Your task to perform on an android device: turn off priority inbox in the gmail app Image 0: 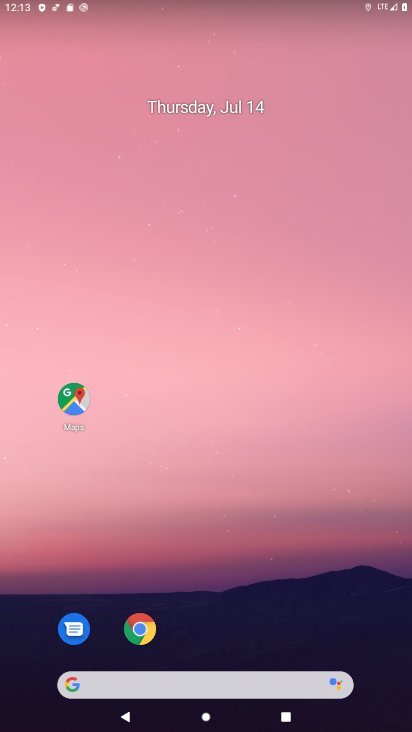
Step 0: drag from (244, 540) to (204, 8)
Your task to perform on an android device: turn off priority inbox in the gmail app Image 1: 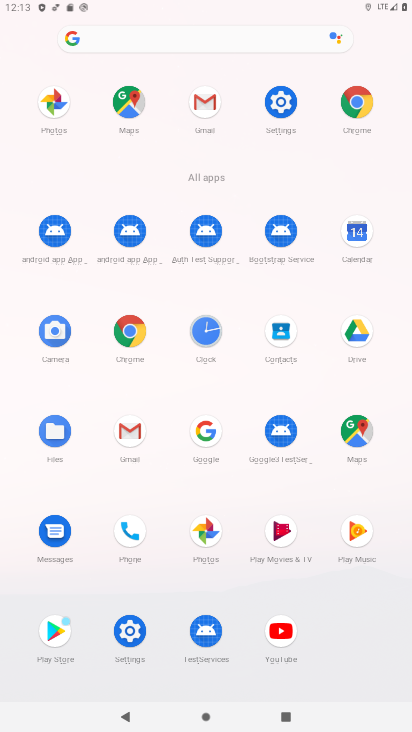
Step 1: click (213, 110)
Your task to perform on an android device: turn off priority inbox in the gmail app Image 2: 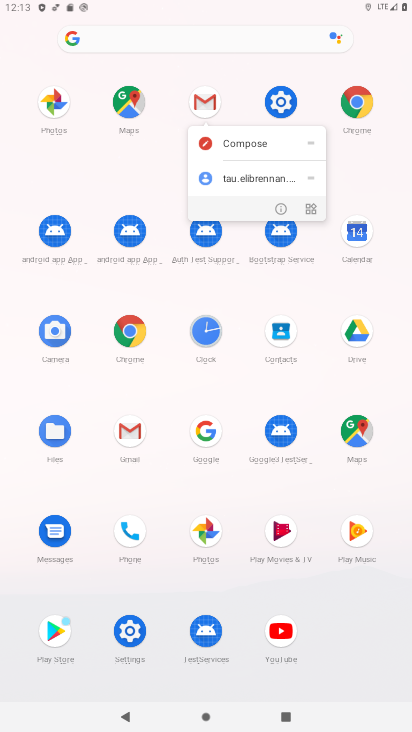
Step 2: click (200, 98)
Your task to perform on an android device: turn off priority inbox in the gmail app Image 3: 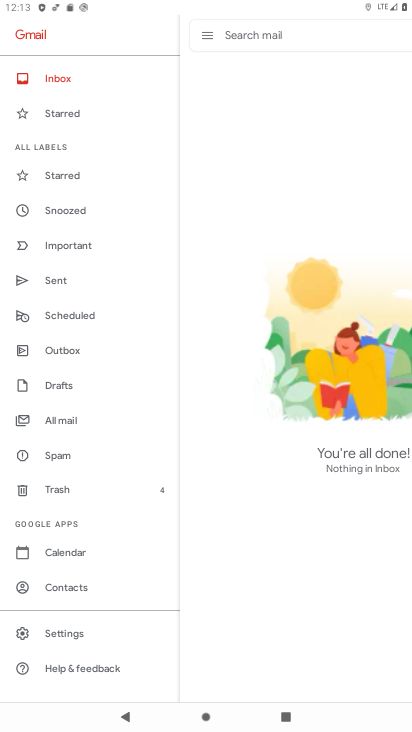
Step 3: click (67, 628)
Your task to perform on an android device: turn off priority inbox in the gmail app Image 4: 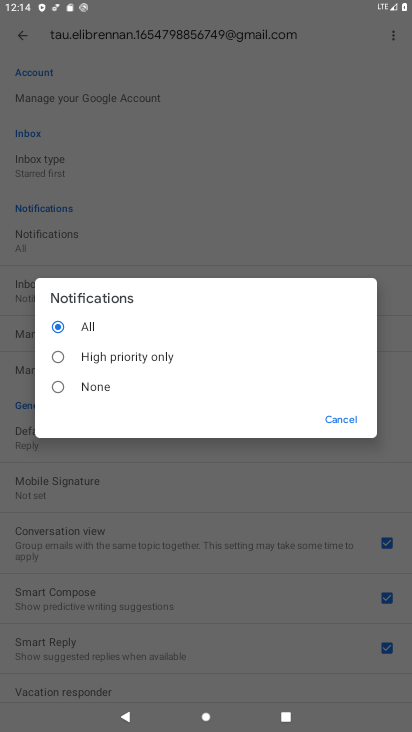
Step 4: click (338, 419)
Your task to perform on an android device: turn off priority inbox in the gmail app Image 5: 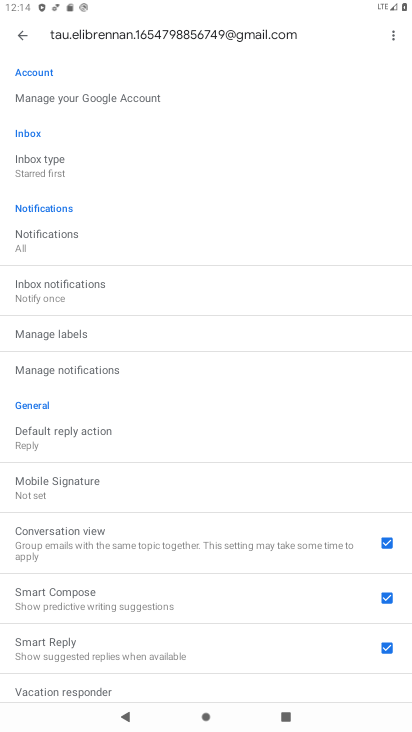
Step 5: click (37, 162)
Your task to perform on an android device: turn off priority inbox in the gmail app Image 6: 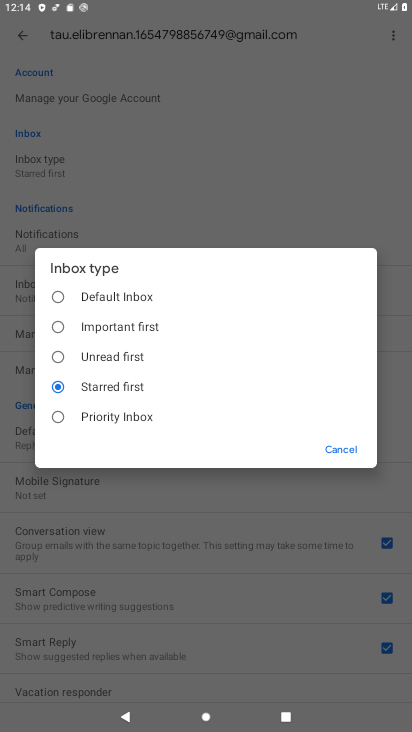
Step 6: task complete